Your task to perform on an android device: Open internet settings Image 0: 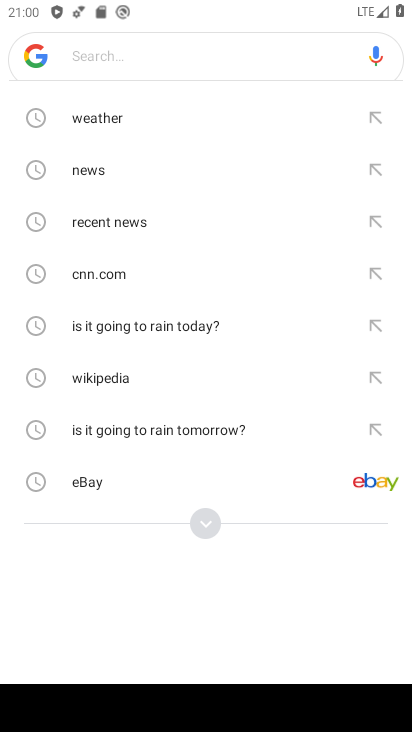
Step 0: press home button
Your task to perform on an android device: Open internet settings Image 1: 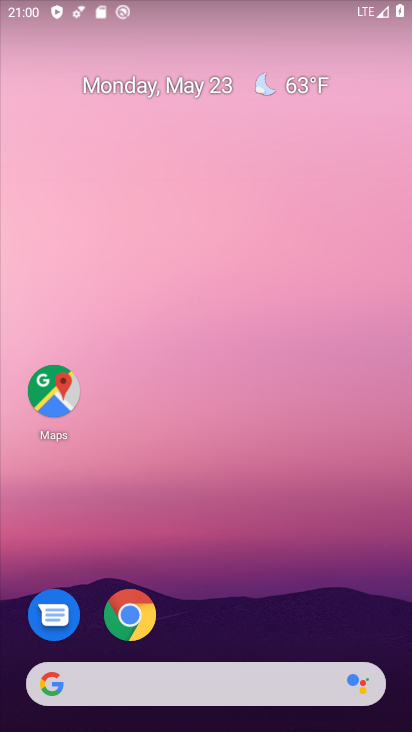
Step 1: drag from (224, 614) to (234, 99)
Your task to perform on an android device: Open internet settings Image 2: 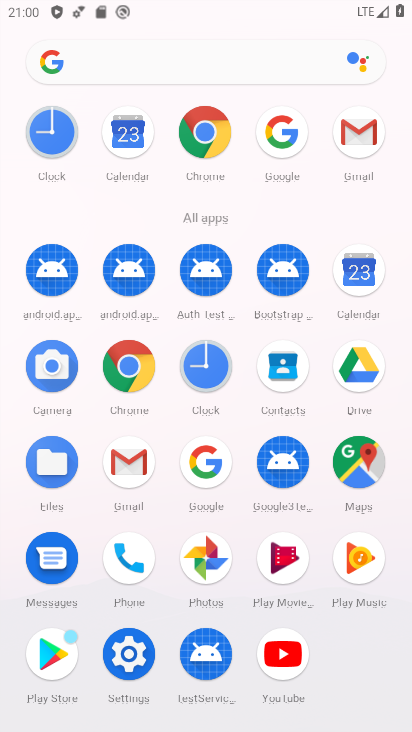
Step 2: click (121, 660)
Your task to perform on an android device: Open internet settings Image 3: 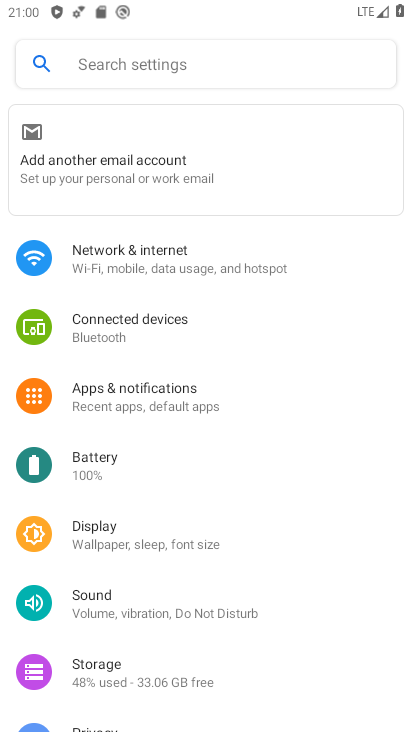
Step 3: click (161, 256)
Your task to perform on an android device: Open internet settings Image 4: 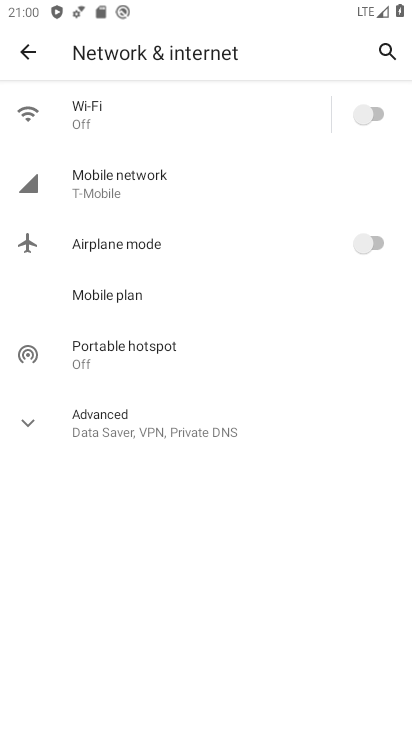
Step 4: click (119, 113)
Your task to perform on an android device: Open internet settings Image 5: 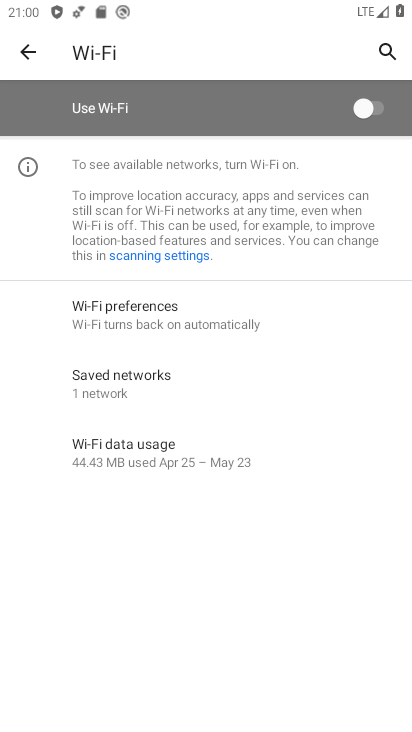
Step 5: click (375, 112)
Your task to perform on an android device: Open internet settings Image 6: 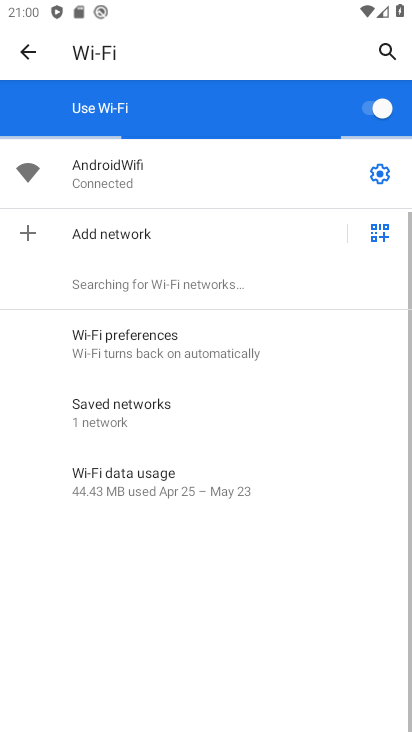
Step 6: click (378, 170)
Your task to perform on an android device: Open internet settings Image 7: 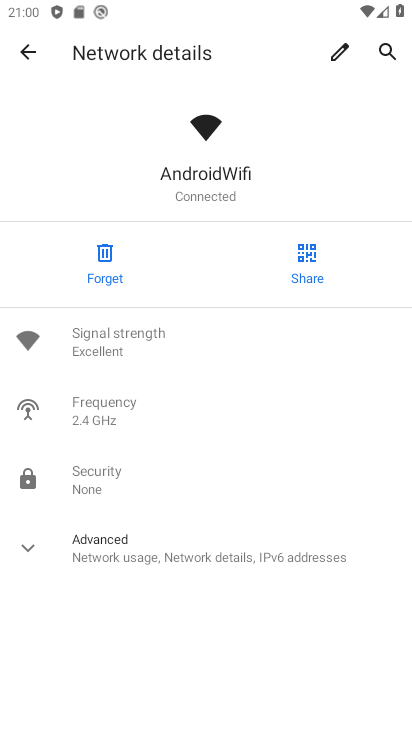
Step 7: task complete